Your task to perform on an android device: Search for pizza restaurants on Maps Image 0: 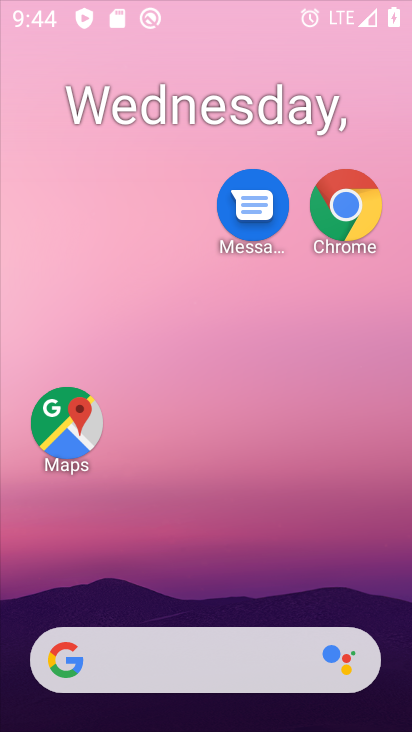
Step 0: click (287, 14)
Your task to perform on an android device: Search for pizza restaurants on Maps Image 1: 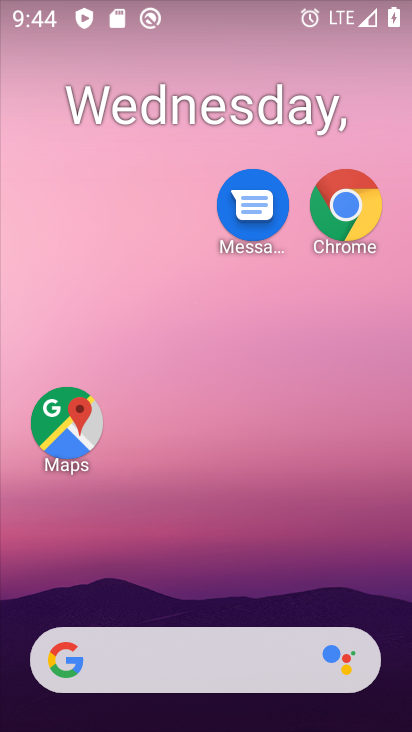
Step 1: drag from (243, 644) to (287, 36)
Your task to perform on an android device: Search for pizza restaurants on Maps Image 2: 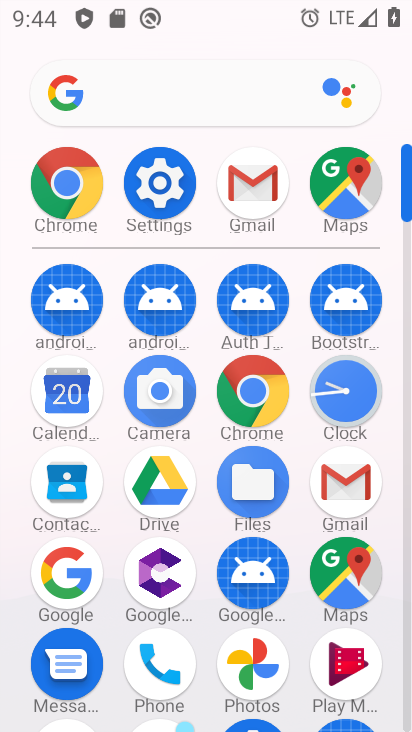
Step 2: click (333, 572)
Your task to perform on an android device: Search for pizza restaurants on Maps Image 3: 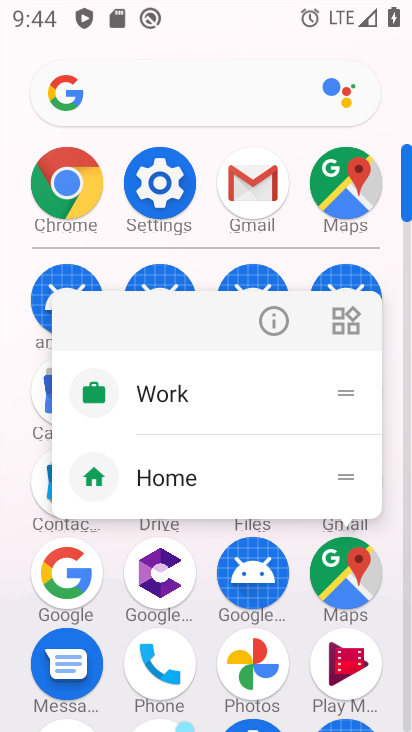
Step 3: click (276, 307)
Your task to perform on an android device: Search for pizza restaurants on Maps Image 4: 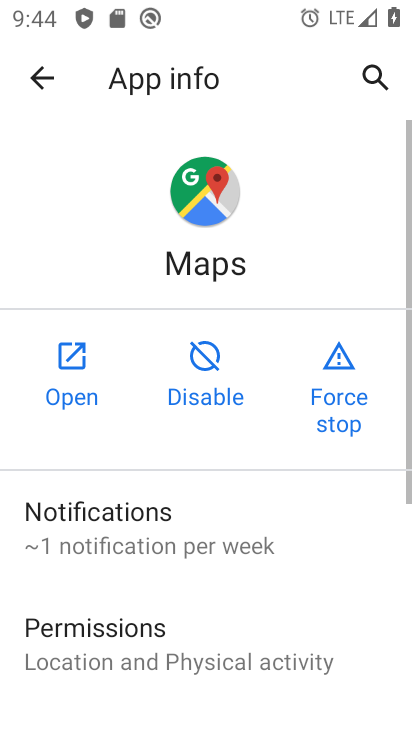
Step 4: click (78, 391)
Your task to perform on an android device: Search for pizza restaurants on Maps Image 5: 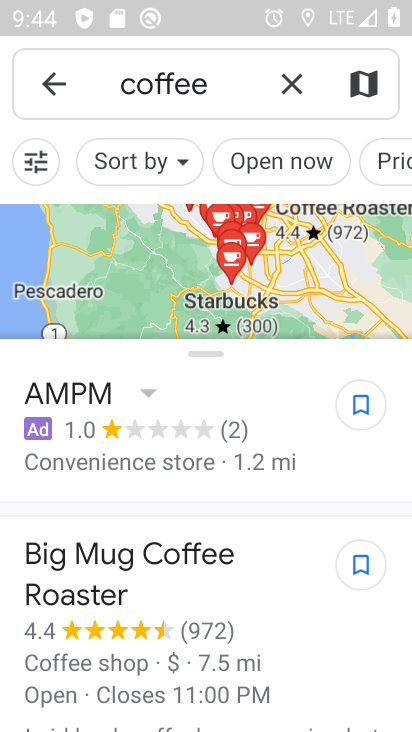
Step 5: click (74, 74)
Your task to perform on an android device: Search for pizza restaurants on Maps Image 6: 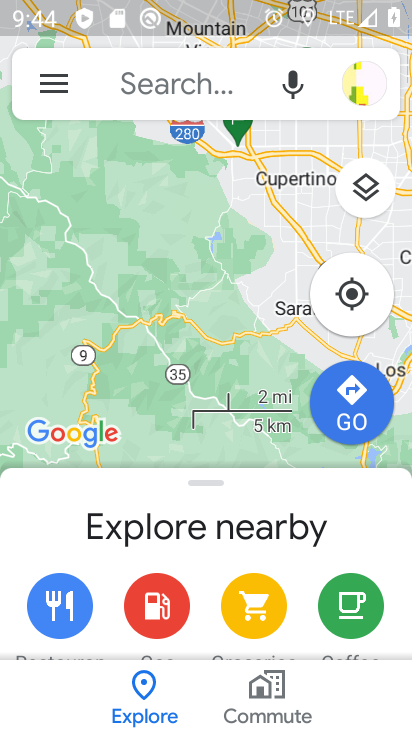
Step 6: click (168, 88)
Your task to perform on an android device: Search for pizza restaurants on Maps Image 7: 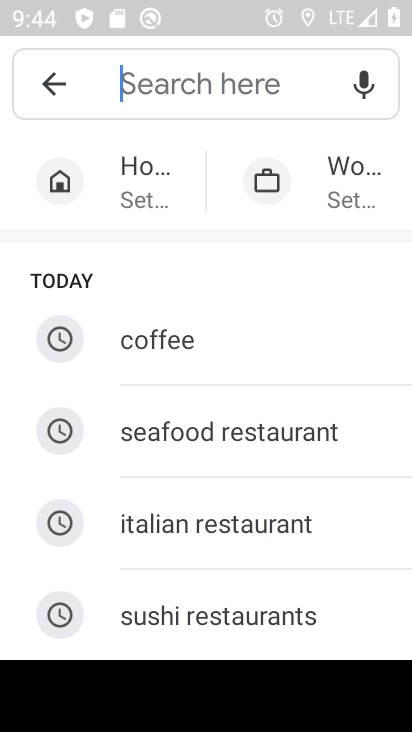
Step 7: drag from (229, 572) to (326, 30)
Your task to perform on an android device: Search for pizza restaurants on Maps Image 8: 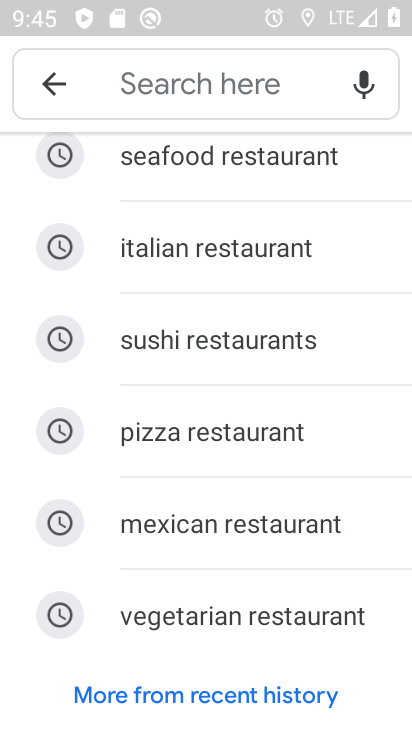
Step 8: click (216, 439)
Your task to perform on an android device: Search for pizza restaurants on Maps Image 9: 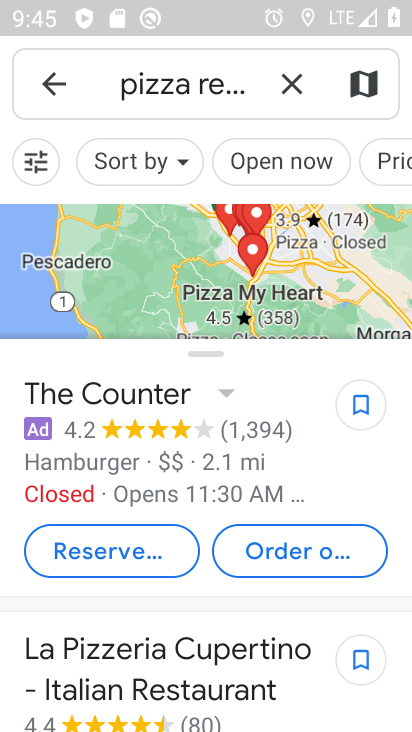
Step 9: task complete